Your task to perform on an android device: Set the phone to "Do not disturb". Image 0: 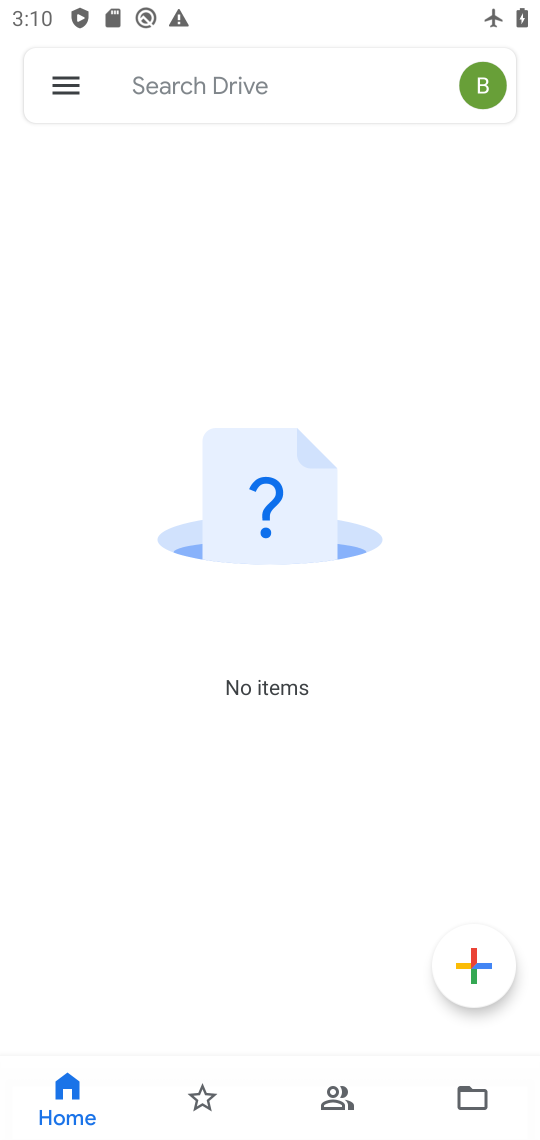
Step 0: press back button
Your task to perform on an android device: Set the phone to "Do not disturb". Image 1: 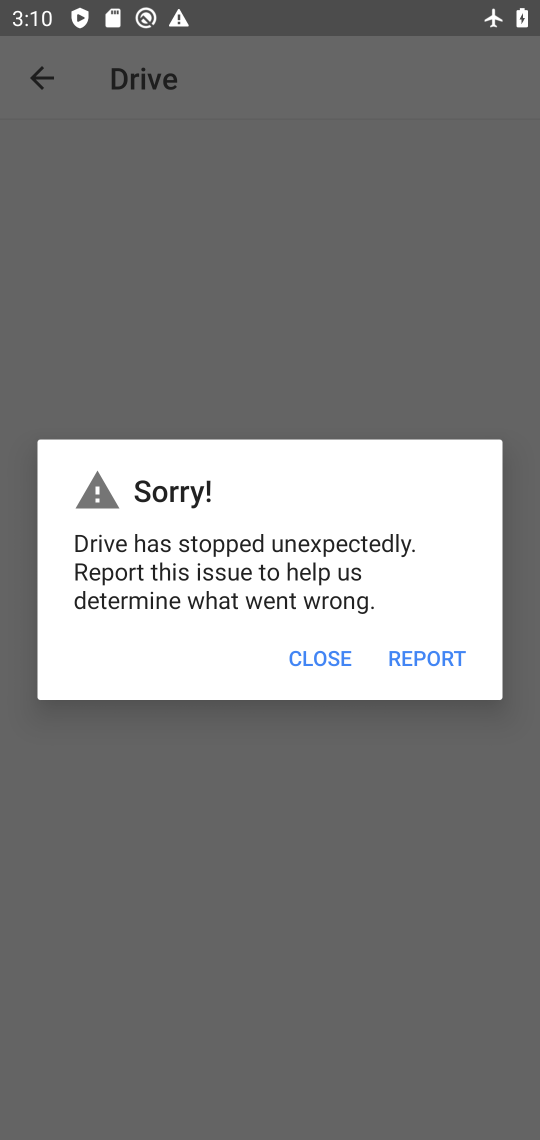
Step 1: drag from (353, 14) to (393, 849)
Your task to perform on an android device: Set the phone to "Do not disturb". Image 2: 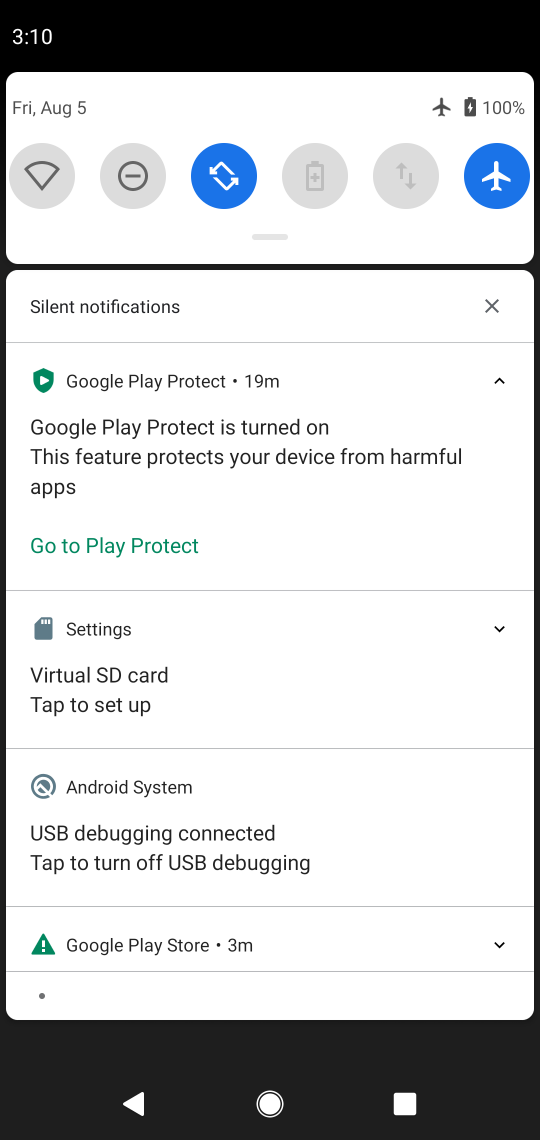
Step 2: click (135, 177)
Your task to perform on an android device: Set the phone to "Do not disturb". Image 3: 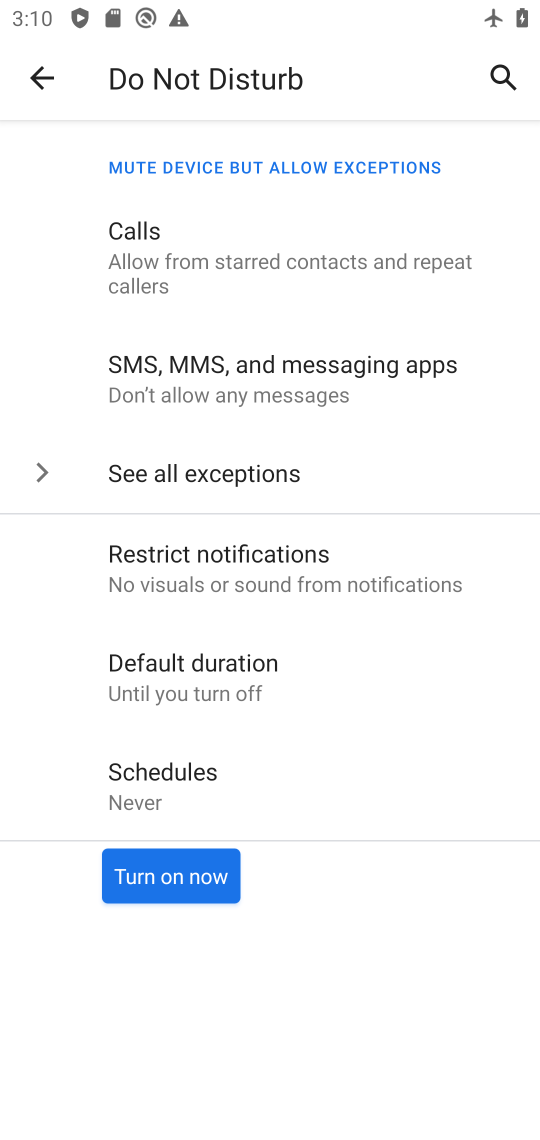
Step 3: click (190, 889)
Your task to perform on an android device: Set the phone to "Do not disturb". Image 4: 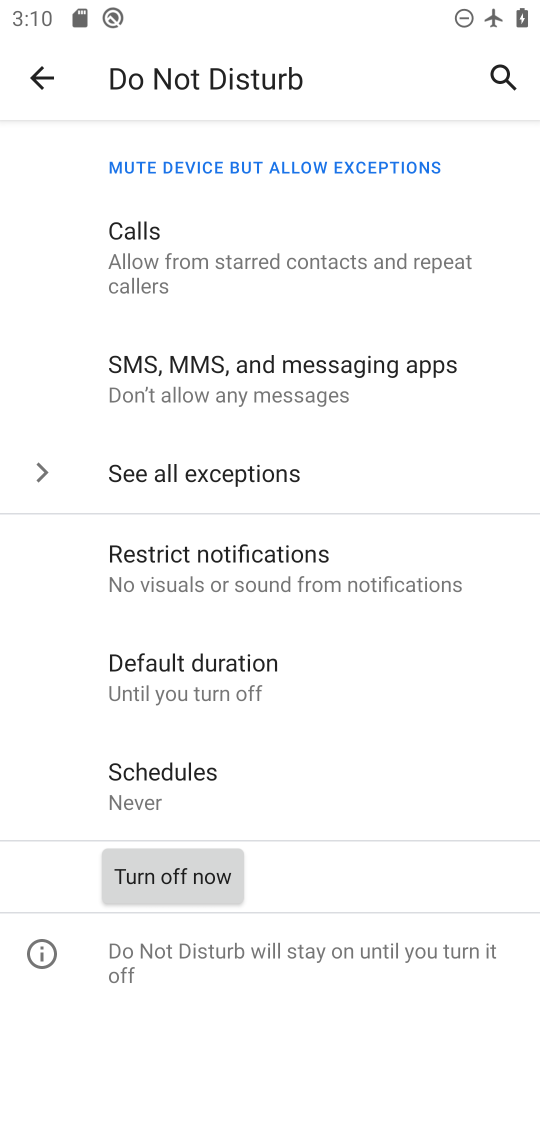
Step 4: task complete